Your task to perform on an android device: Open calendar and show me the second week of next month Image 0: 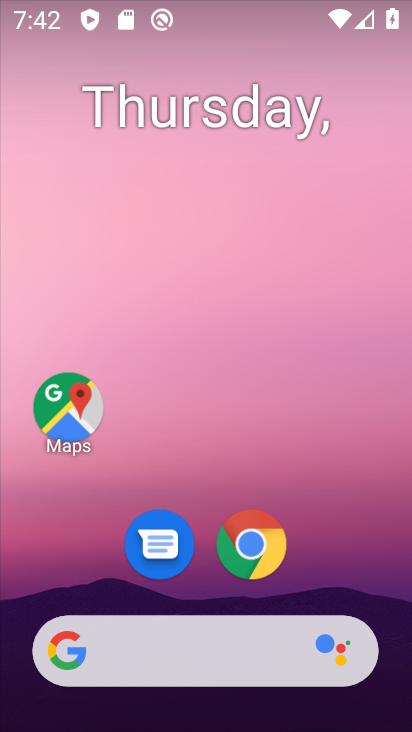
Step 0: drag from (339, 544) to (254, 81)
Your task to perform on an android device: Open calendar and show me the second week of next month Image 1: 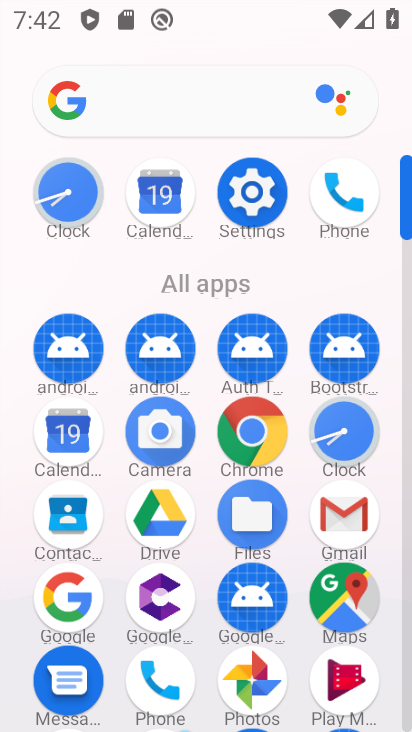
Step 1: click (70, 433)
Your task to perform on an android device: Open calendar and show me the second week of next month Image 2: 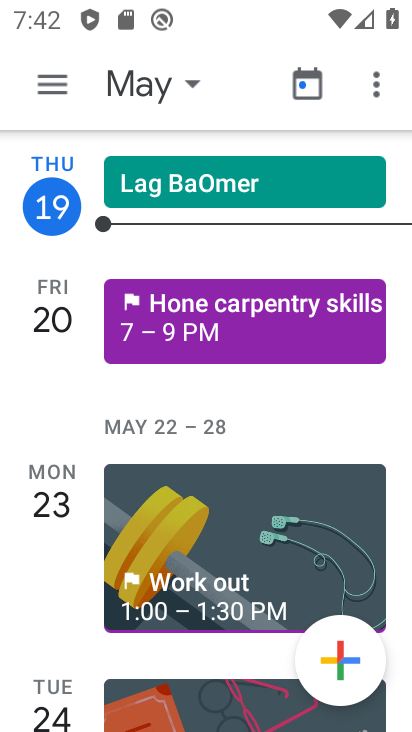
Step 2: click (185, 82)
Your task to perform on an android device: Open calendar and show me the second week of next month Image 3: 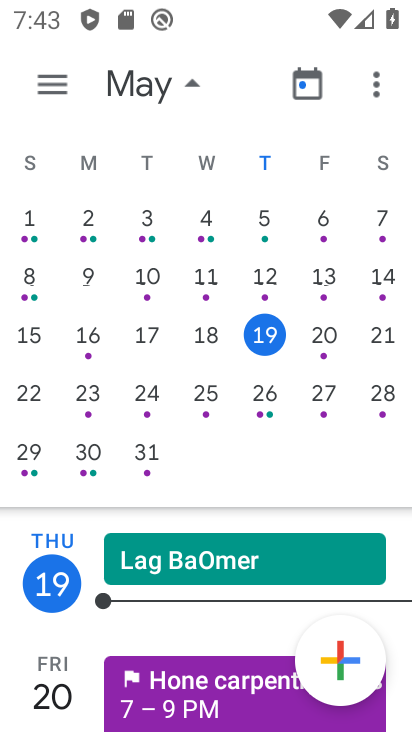
Step 3: drag from (375, 350) to (0, 369)
Your task to perform on an android device: Open calendar and show me the second week of next month Image 4: 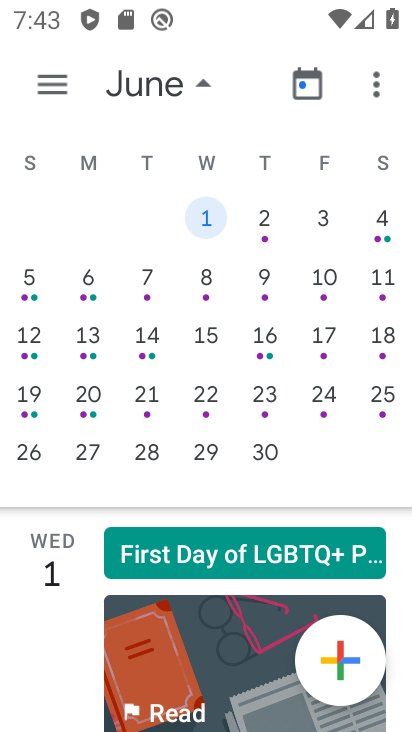
Step 4: click (91, 338)
Your task to perform on an android device: Open calendar and show me the second week of next month Image 5: 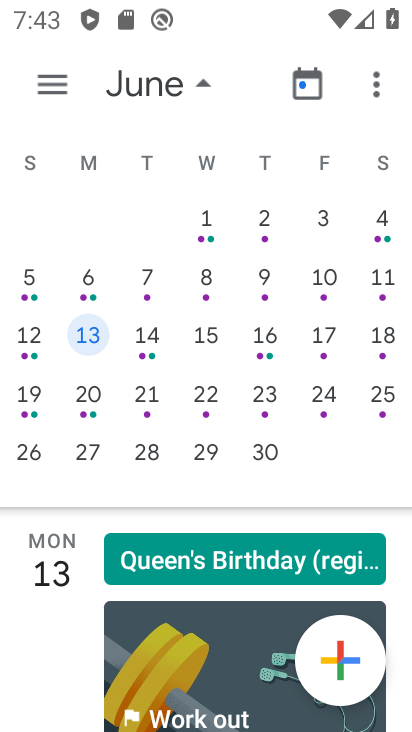
Step 5: click (53, 84)
Your task to perform on an android device: Open calendar and show me the second week of next month Image 6: 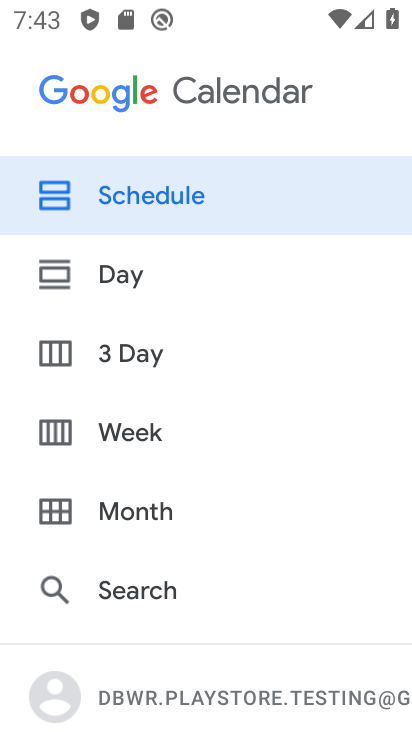
Step 6: click (130, 438)
Your task to perform on an android device: Open calendar and show me the second week of next month Image 7: 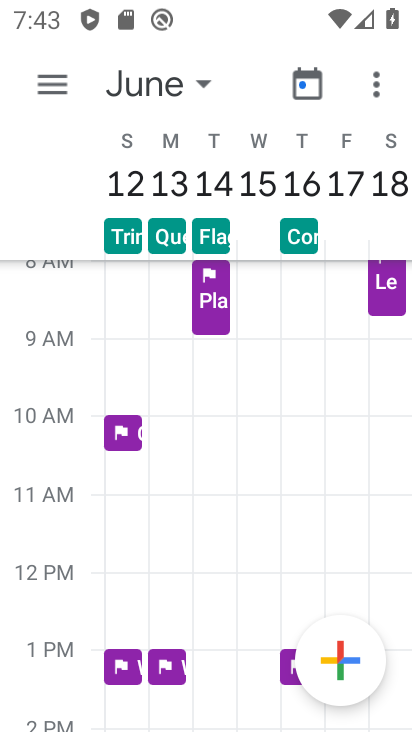
Step 7: task complete